Your task to perform on an android device: Is it going to rain this weekend? Image 0: 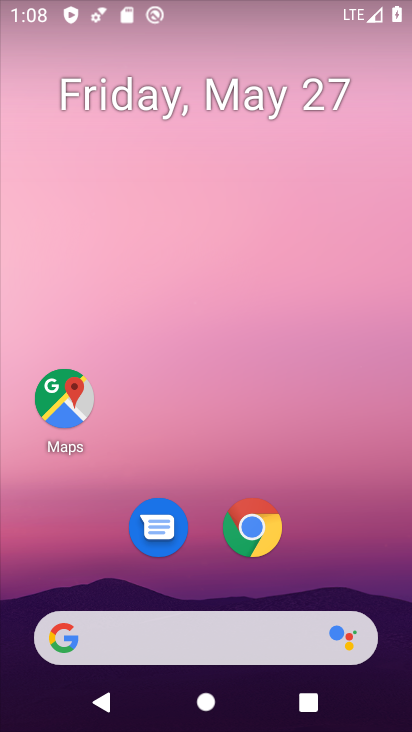
Step 0: click (181, 644)
Your task to perform on an android device: Is it going to rain this weekend? Image 1: 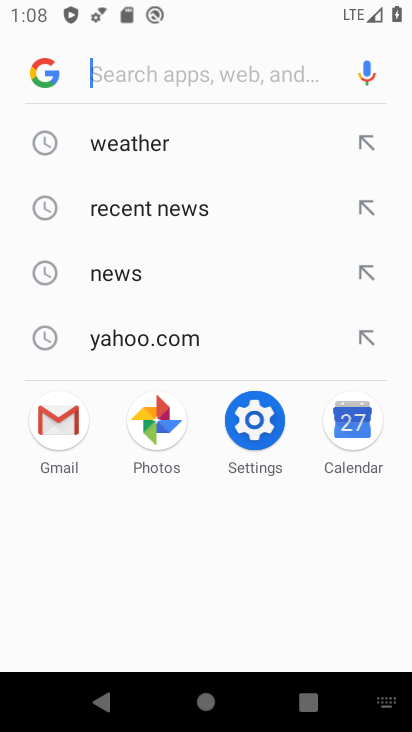
Step 1: type "Is it going to rain this weekend?"
Your task to perform on an android device: Is it going to rain this weekend? Image 2: 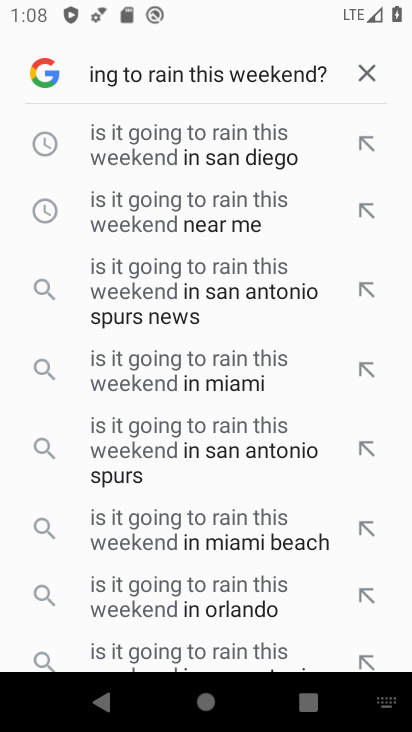
Step 2: click (181, 218)
Your task to perform on an android device: Is it going to rain this weekend? Image 3: 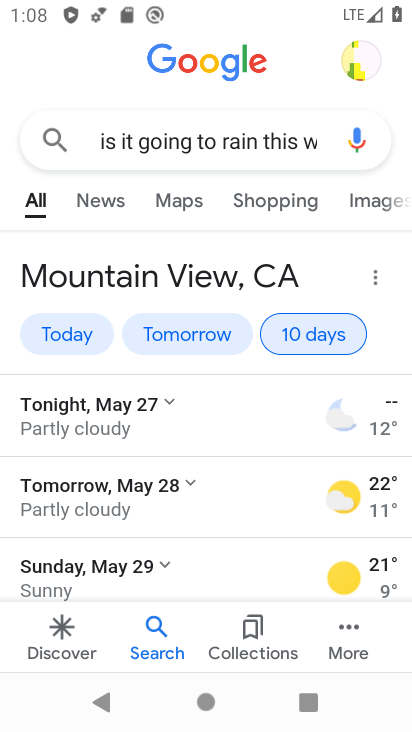
Step 3: task complete